Your task to perform on an android device: turn notification dots off Image 0: 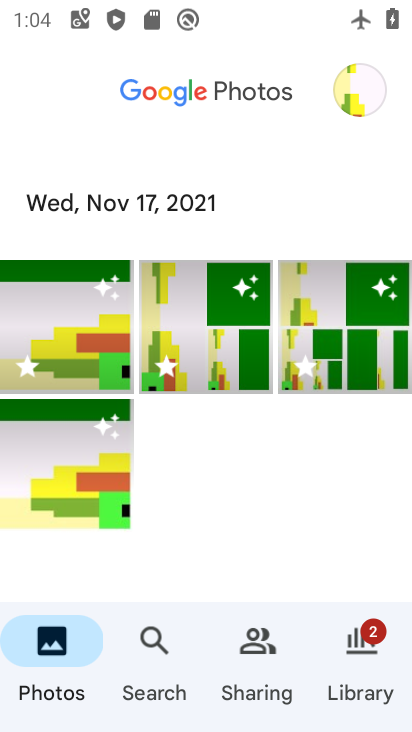
Step 0: press home button
Your task to perform on an android device: turn notification dots off Image 1: 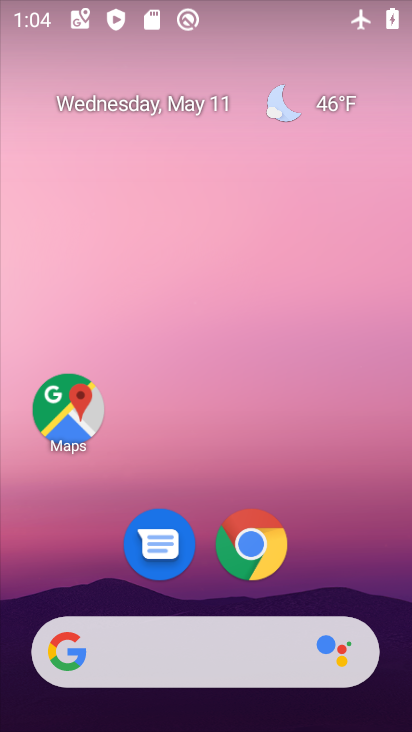
Step 1: drag from (397, 658) to (319, 112)
Your task to perform on an android device: turn notification dots off Image 2: 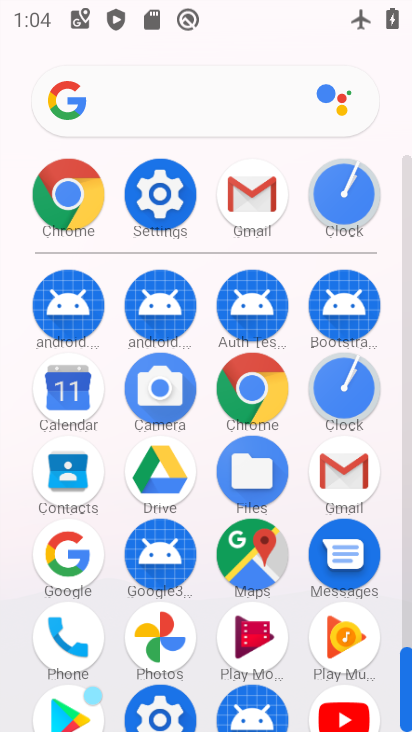
Step 2: drag from (404, 627) to (404, 588)
Your task to perform on an android device: turn notification dots off Image 3: 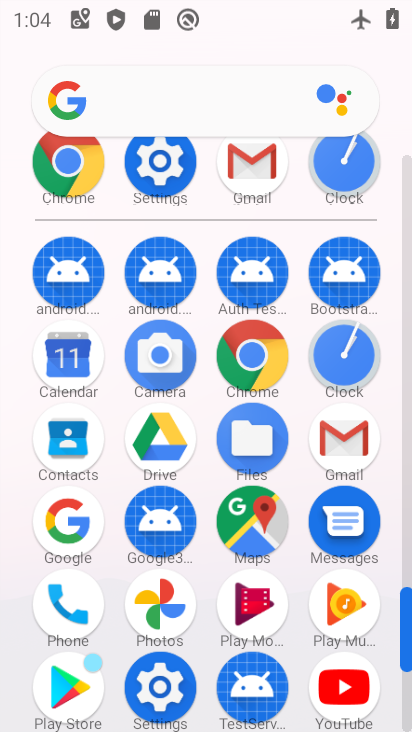
Step 3: click (160, 686)
Your task to perform on an android device: turn notification dots off Image 4: 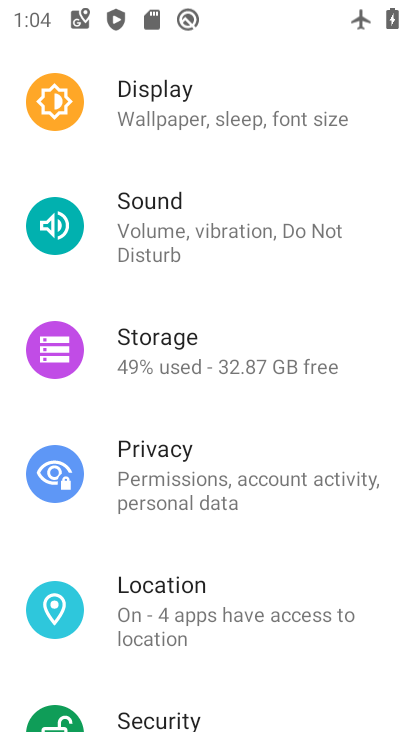
Step 4: drag from (344, 223) to (329, 480)
Your task to perform on an android device: turn notification dots off Image 5: 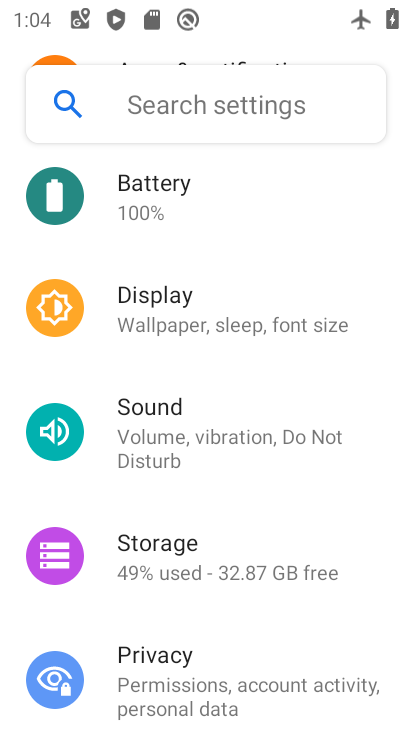
Step 5: drag from (266, 209) to (307, 564)
Your task to perform on an android device: turn notification dots off Image 6: 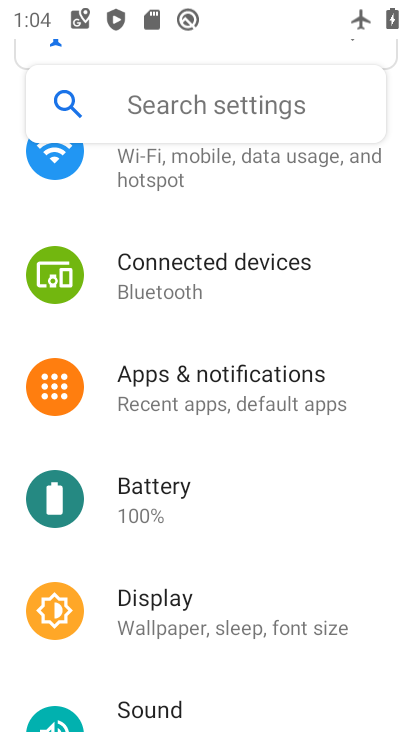
Step 6: click (175, 379)
Your task to perform on an android device: turn notification dots off Image 7: 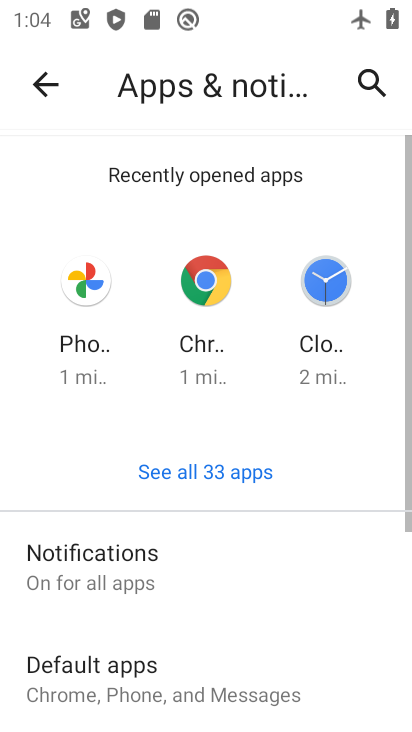
Step 7: drag from (232, 637) to (245, 139)
Your task to perform on an android device: turn notification dots off Image 8: 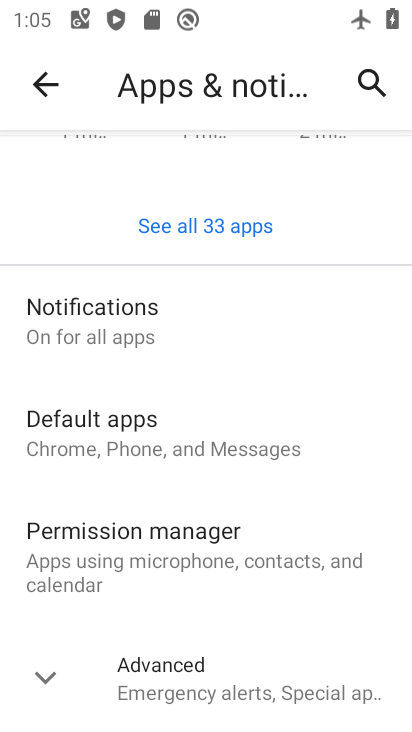
Step 8: click (92, 301)
Your task to perform on an android device: turn notification dots off Image 9: 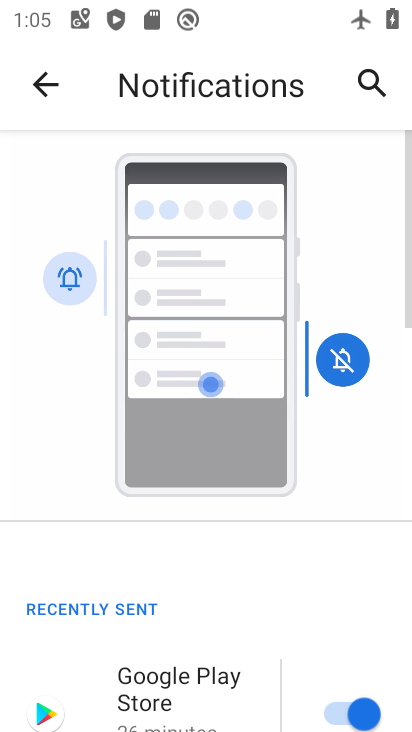
Step 9: drag from (246, 671) to (243, 138)
Your task to perform on an android device: turn notification dots off Image 10: 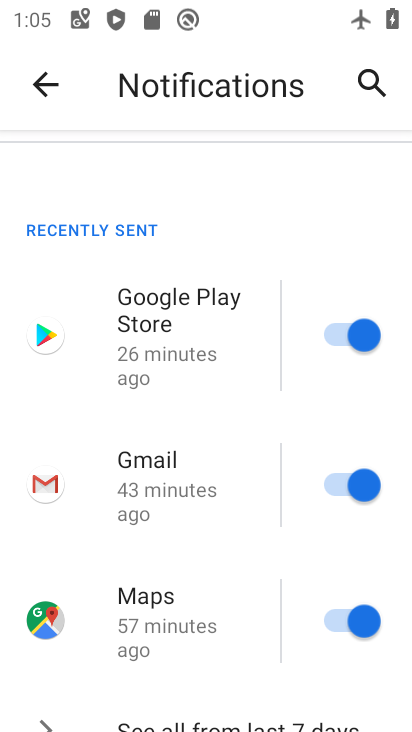
Step 10: drag from (269, 644) to (263, 115)
Your task to perform on an android device: turn notification dots off Image 11: 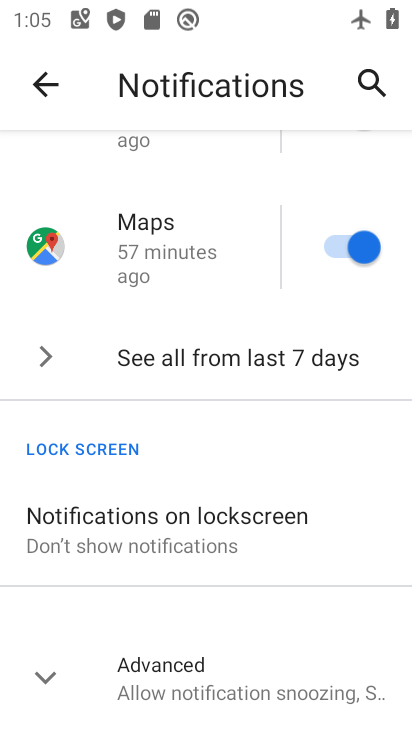
Step 11: click (51, 675)
Your task to perform on an android device: turn notification dots off Image 12: 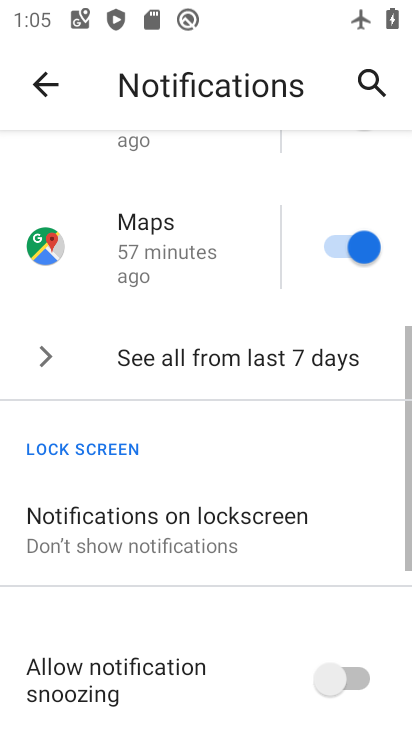
Step 12: drag from (278, 651) to (253, 159)
Your task to perform on an android device: turn notification dots off Image 13: 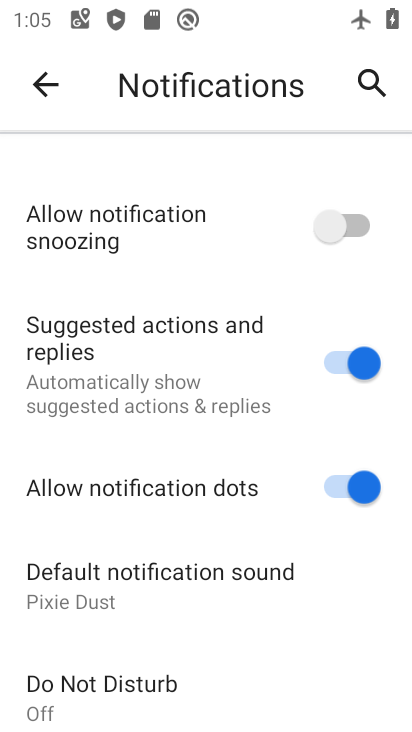
Step 13: click (334, 484)
Your task to perform on an android device: turn notification dots off Image 14: 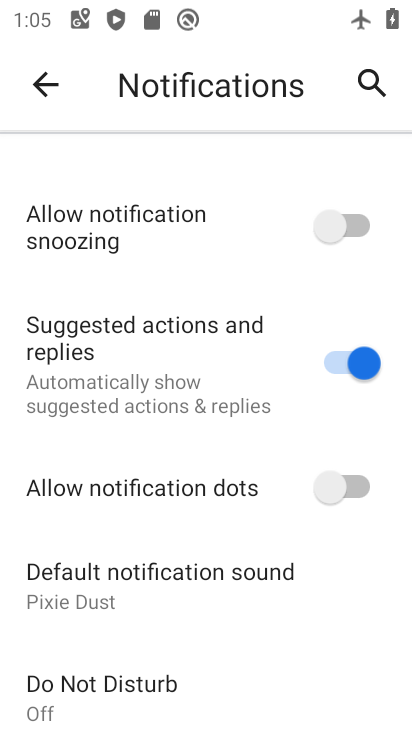
Step 14: task complete